Your task to perform on an android device: open app "Speedtest by Ookla" (install if not already installed), go to login, and select forgot password Image 0: 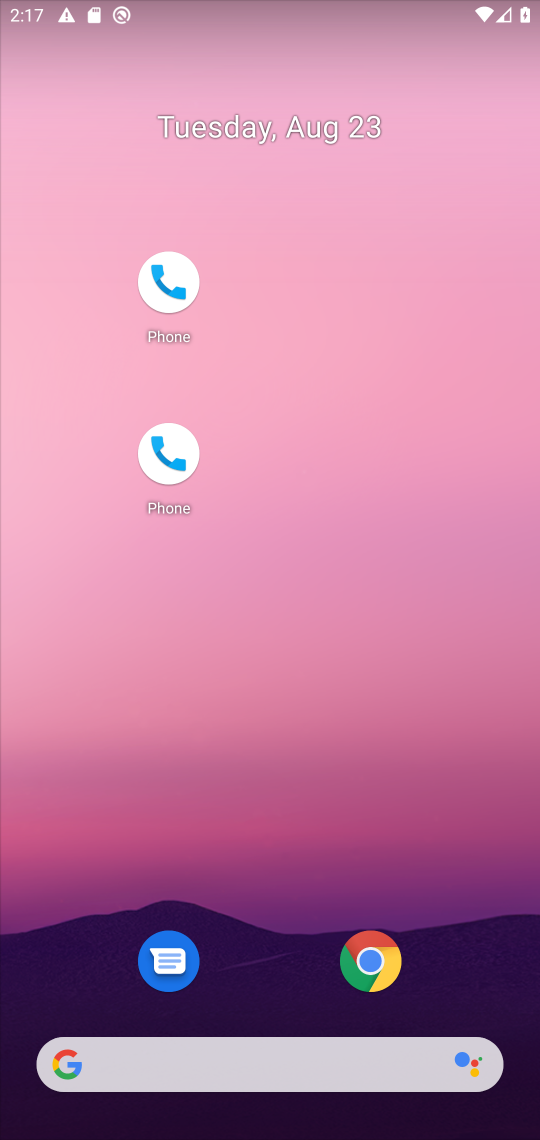
Step 0: drag from (280, 958) to (264, 259)
Your task to perform on an android device: open app "Speedtest by Ookla" (install if not already installed), go to login, and select forgot password Image 1: 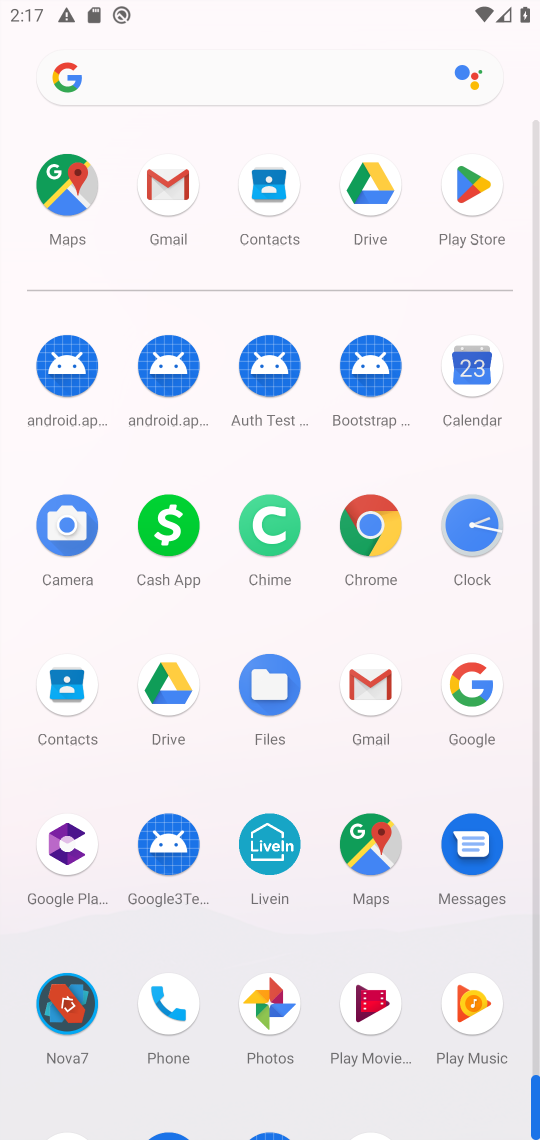
Step 1: click (465, 203)
Your task to perform on an android device: open app "Speedtest by Ookla" (install if not already installed), go to login, and select forgot password Image 2: 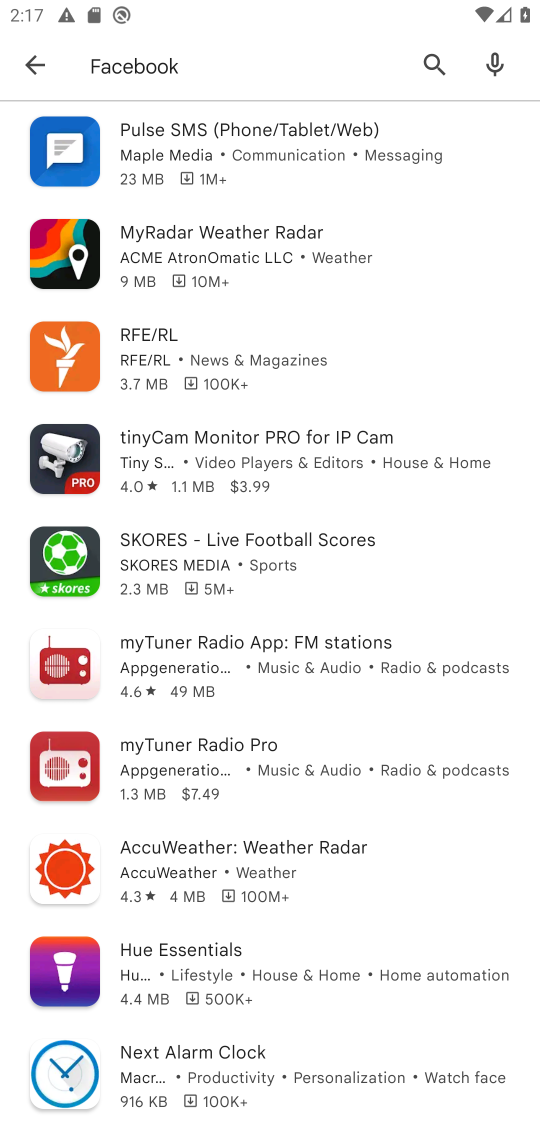
Step 2: click (412, 77)
Your task to perform on an android device: open app "Speedtest by Ookla" (install if not already installed), go to login, and select forgot password Image 3: 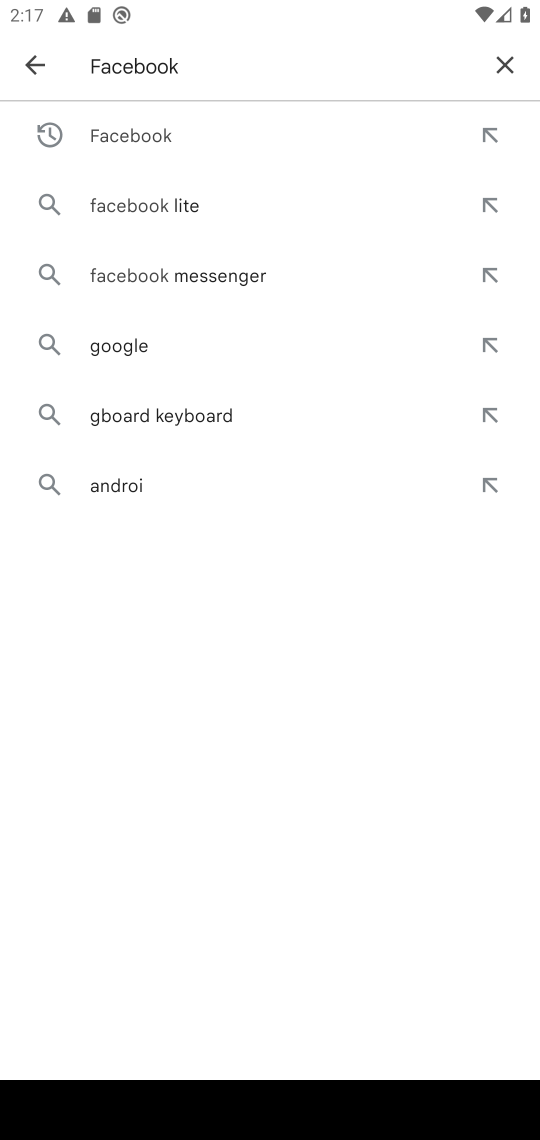
Step 3: click (505, 76)
Your task to perform on an android device: open app "Speedtest by Ookla" (install if not already installed), go to login, and select forgot password Image 4: 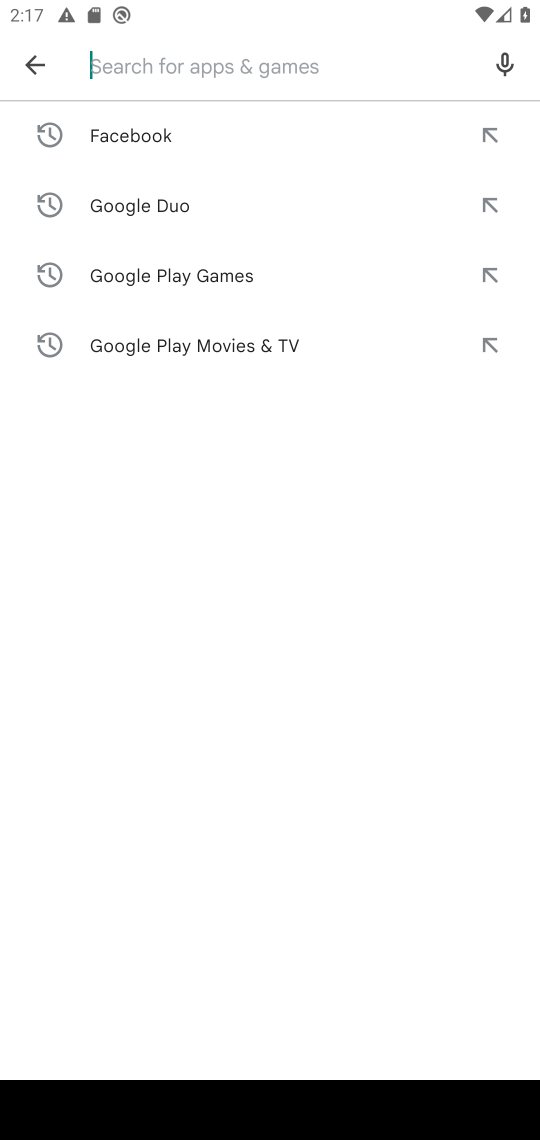
Step 4: type "speedtest"
Your task to perform on an android device: open app "Speedtest by Ookla" (install if not already installed), go to login, and select forgot password Image 5: 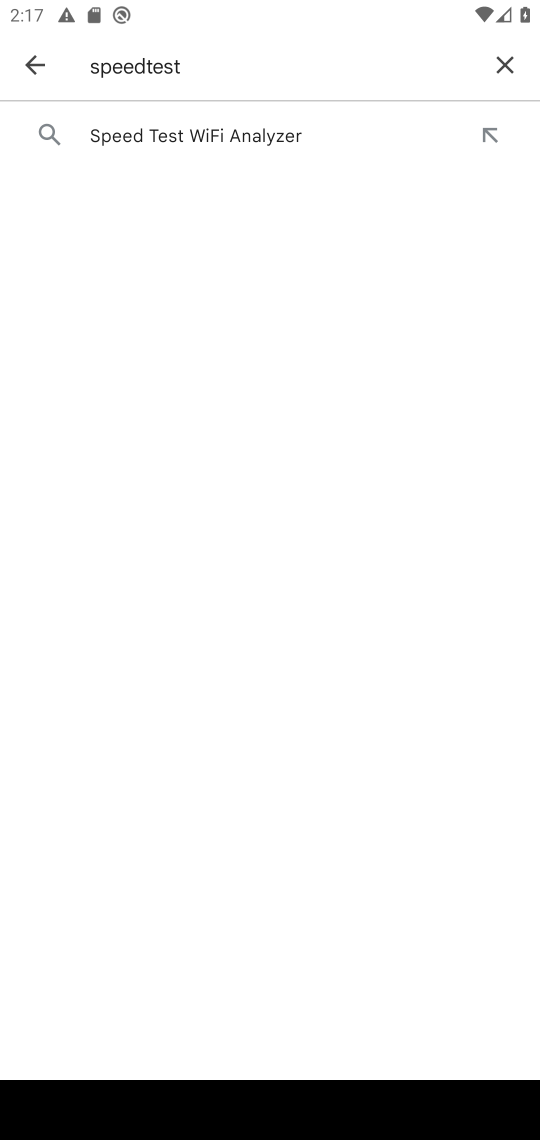
Step 5: click (283, 158)
Your task to perform on an android device: open app "Speedtest by Ookla" (install if not already installed), go to login, and select forgot password Image 6: 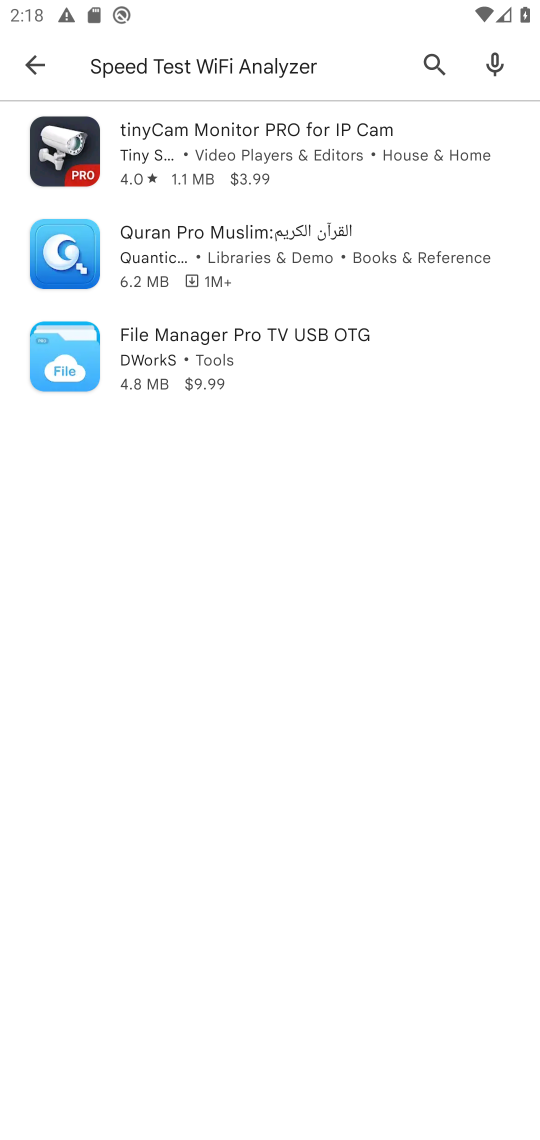
Step 6: task complete